Your task to perform on an android device: Empty the shopping cart on amazon.com. Search for acer predator on amazon.com, select the first entry, and add it to the cart. Image 0: 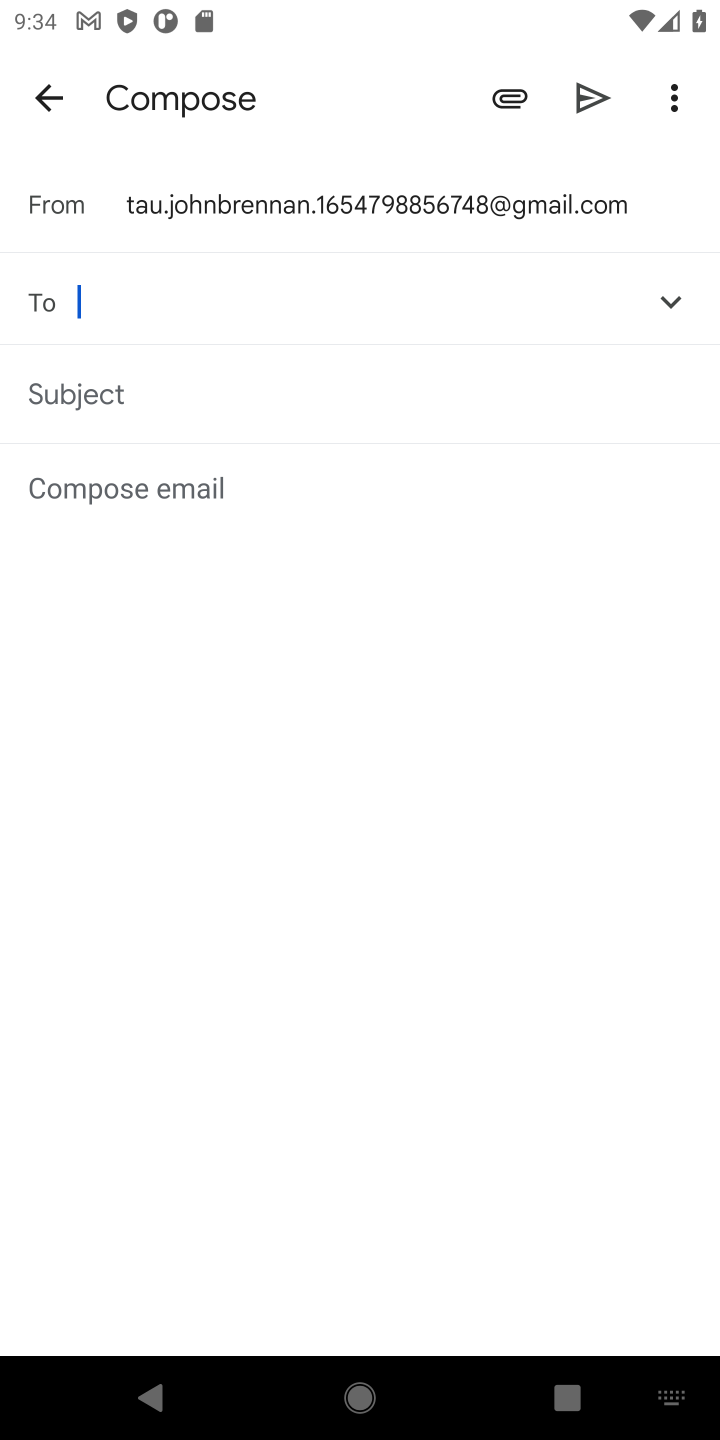
Step 0: press home button
Your task to perform on an android device: Empty the shopping cart on amazon.com. Search for acer predator on amazon.com, select the first entry, and add it to the cart. Image 1: 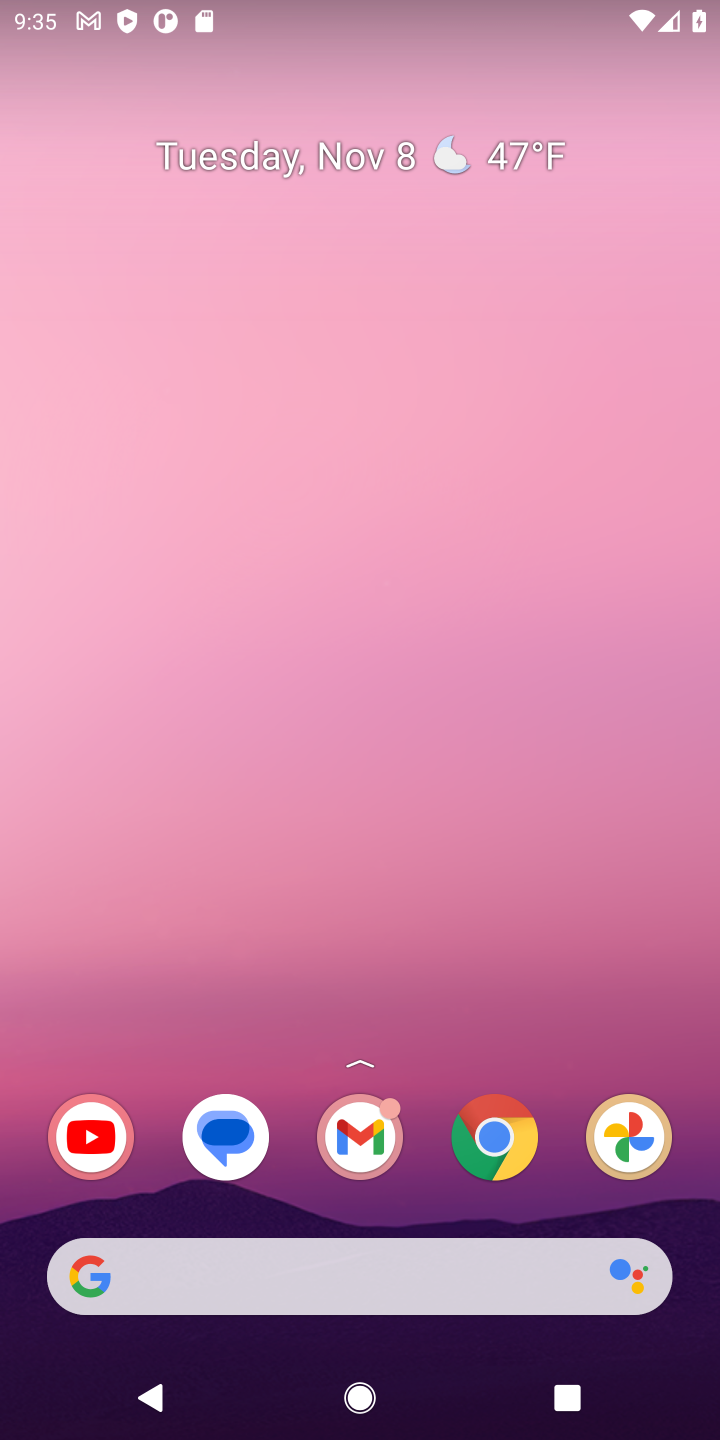
Step 1: click (498, 1140)
Your task to perform on an android device: Empty the shopping cart on amazon.com. Search for acer predator on amazon.com, select the first entry, and add it to the cart. Image 2: 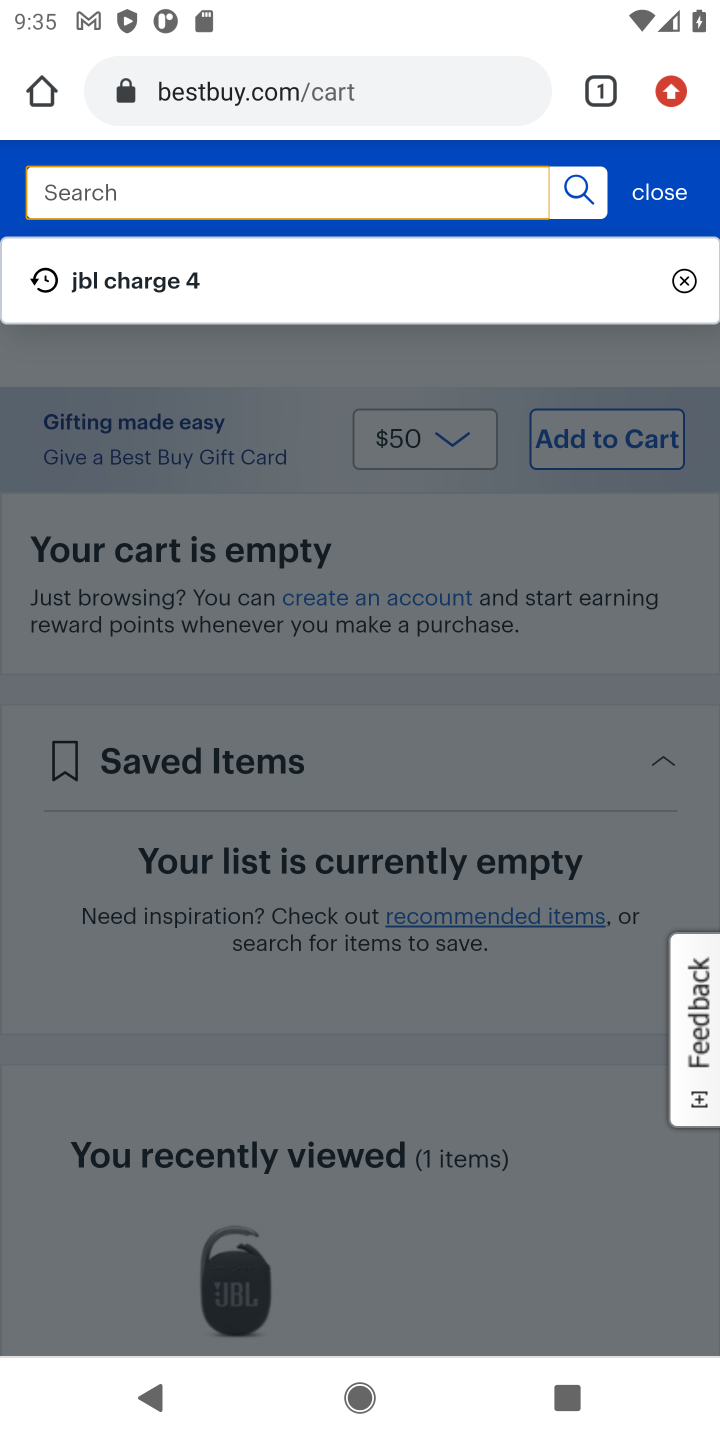
Step 2: click (398, 81)
Your task to perform on an android device: Empty the shopping cart on amazon.com. Search for acer predator on amazon.com, select the first entry, and add it to the cart. Image 3: 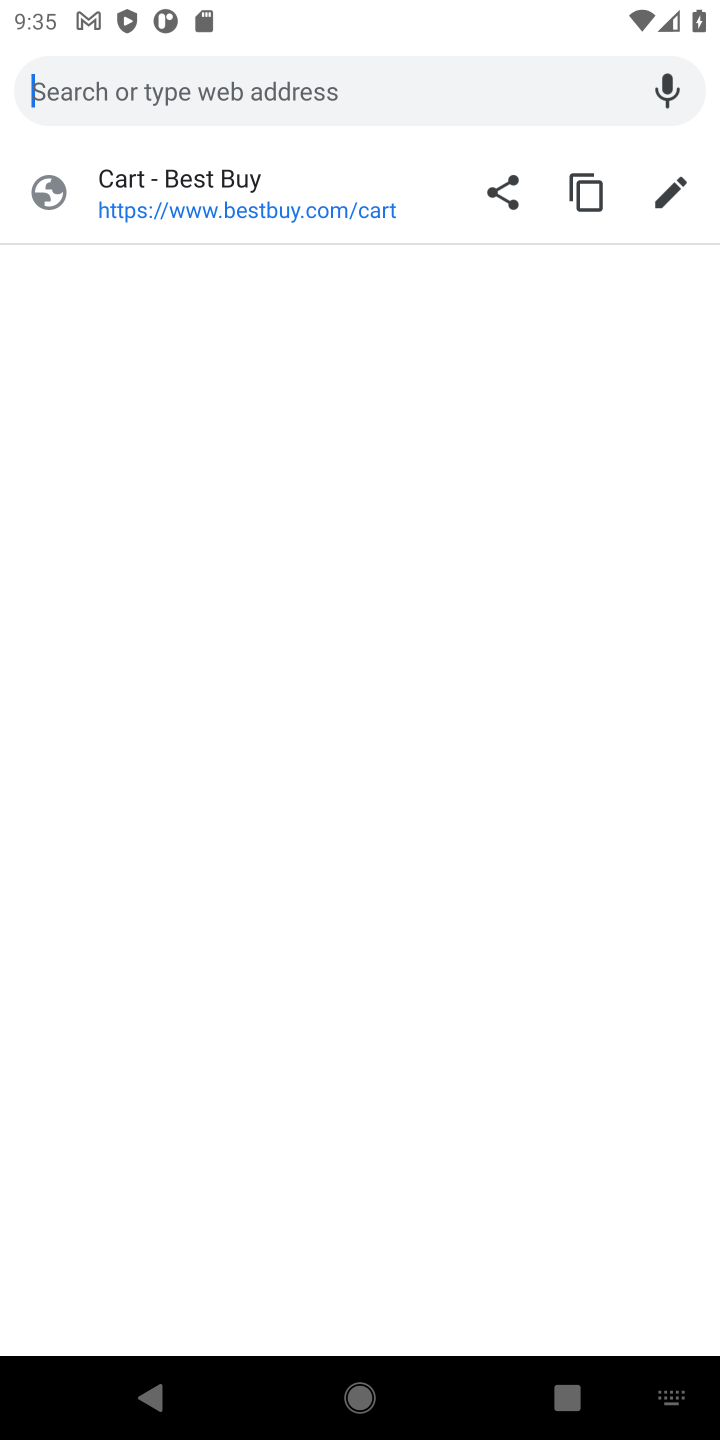
Step 3: type "amazon.com"
Your task to perform on an android device: Empty the shopping cart on amazon.com. Search for acer predator on amazon.com, select the first entry, and add it to the cart. Image 4: 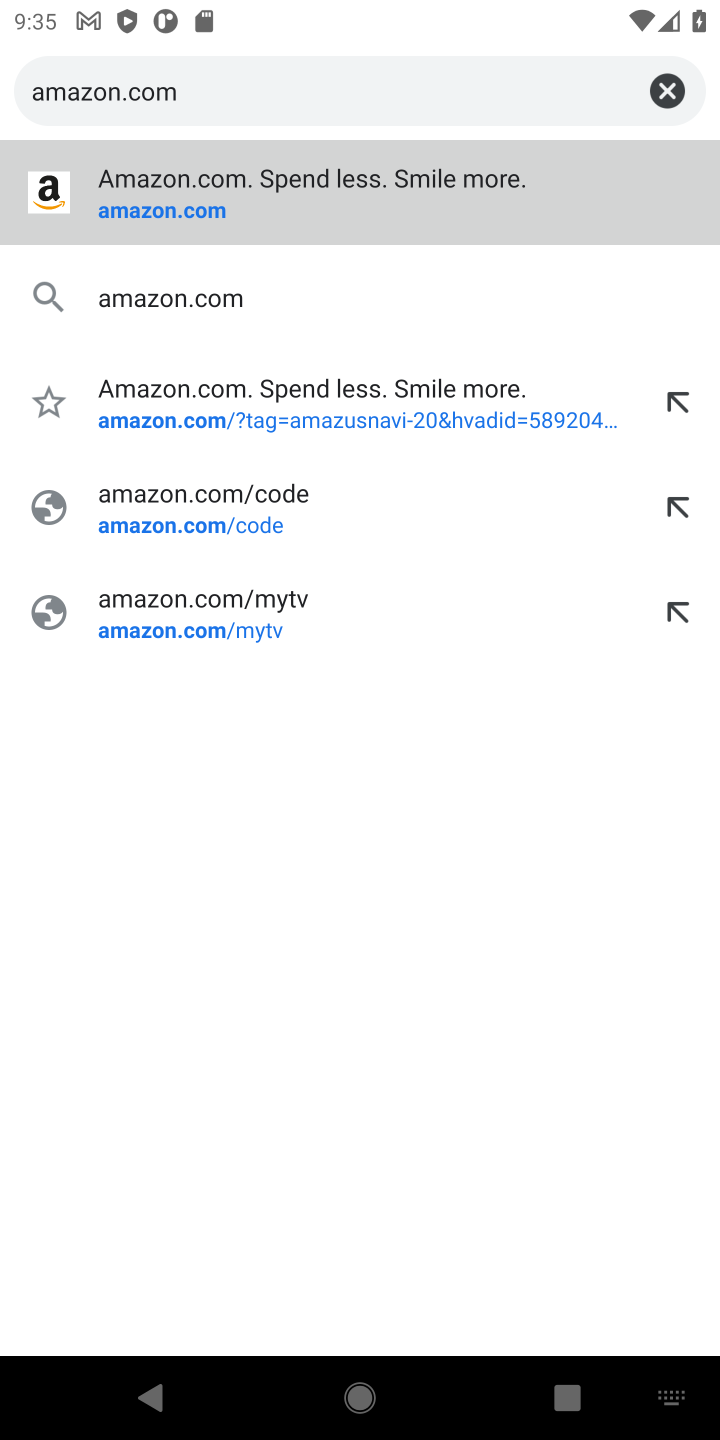
Step 4: click (223, 313)
Your task to perform on an android device: Empty the shopping cart on amazon.com. Search for acer predator on amazon.com, select the first entry, and add it to the cart. Image 5: 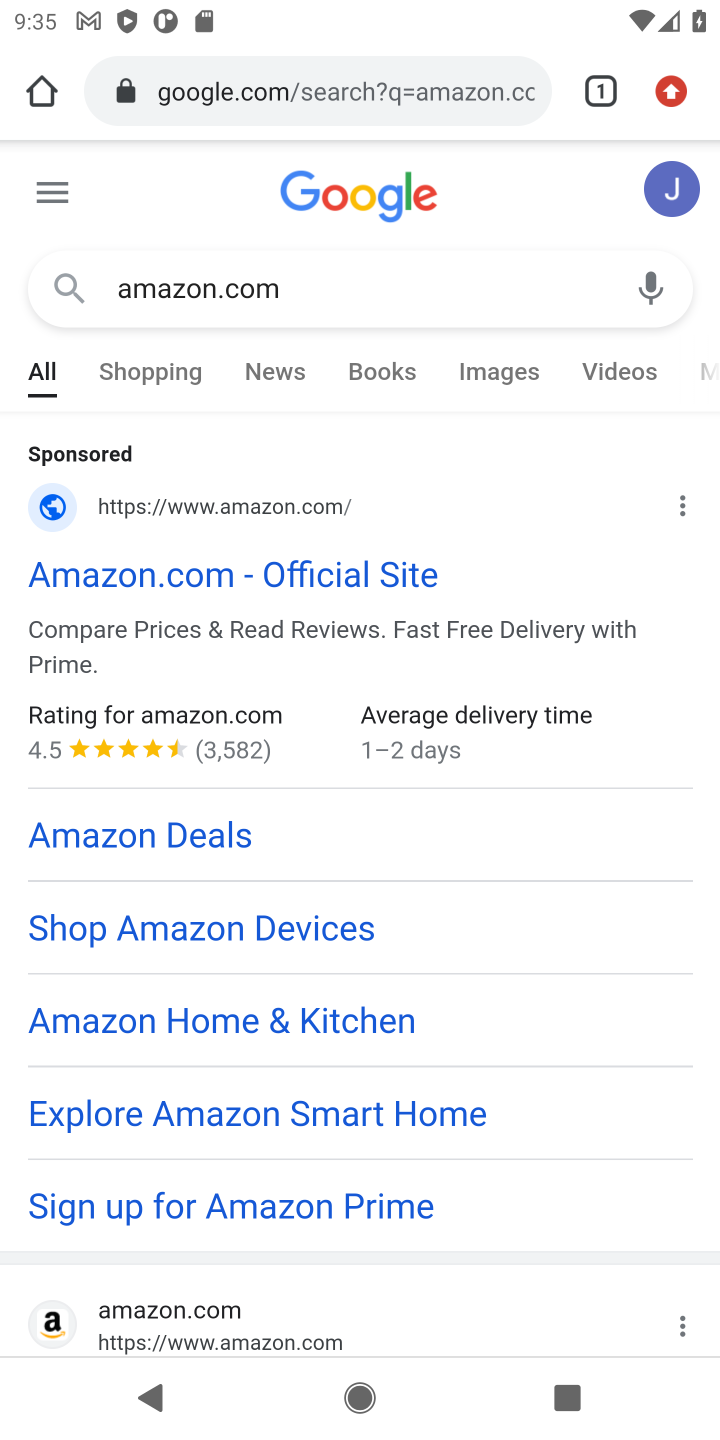
Step 5: click (231, 1322)
Your task to perform on an android device: Empty the shopping cart on amazon.com. Search for acer predator on amazon.com, select the first entry, and add it to the cart. Image 6: 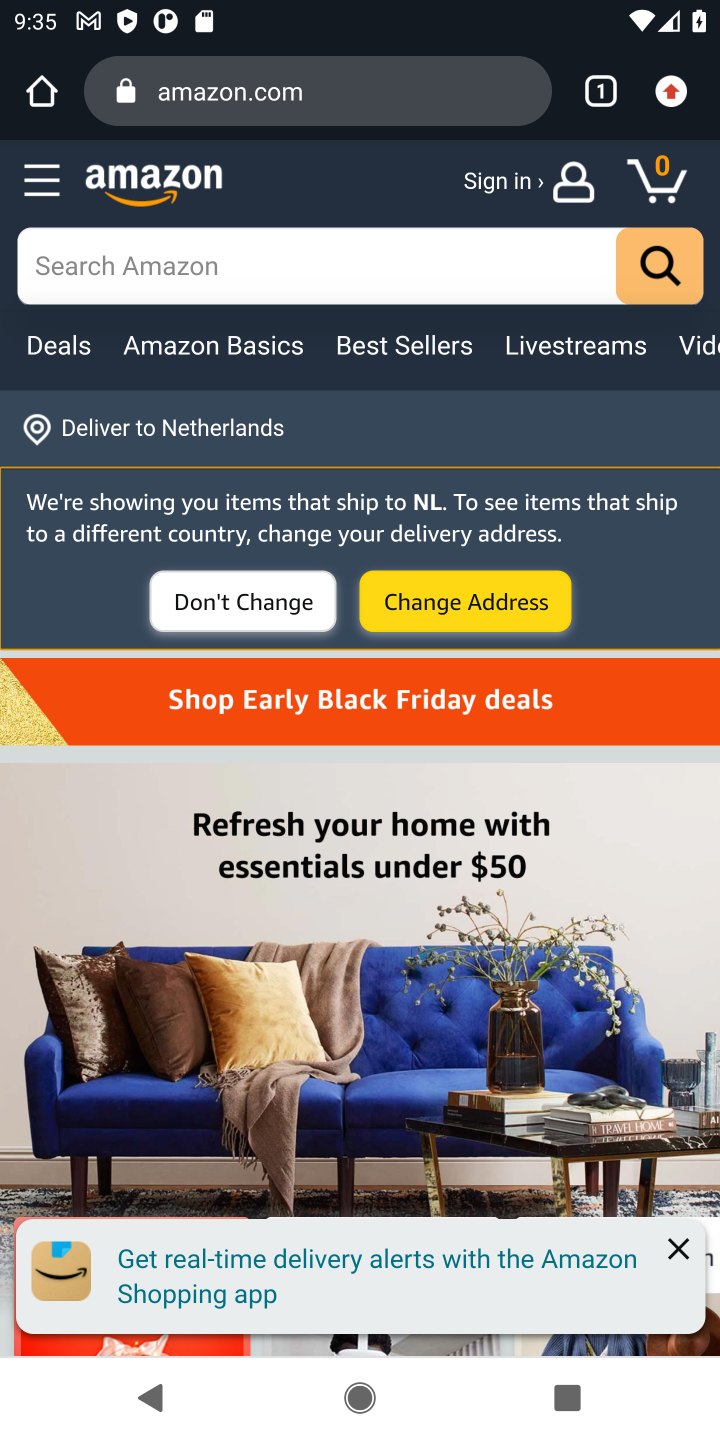
Step 6: click (665, 189)
Your task to perform on an android device: Empty the shopping cart on amazon.com. Search for acer predator on amazon.com, select the first entry, and add it to the cart. Image 7: 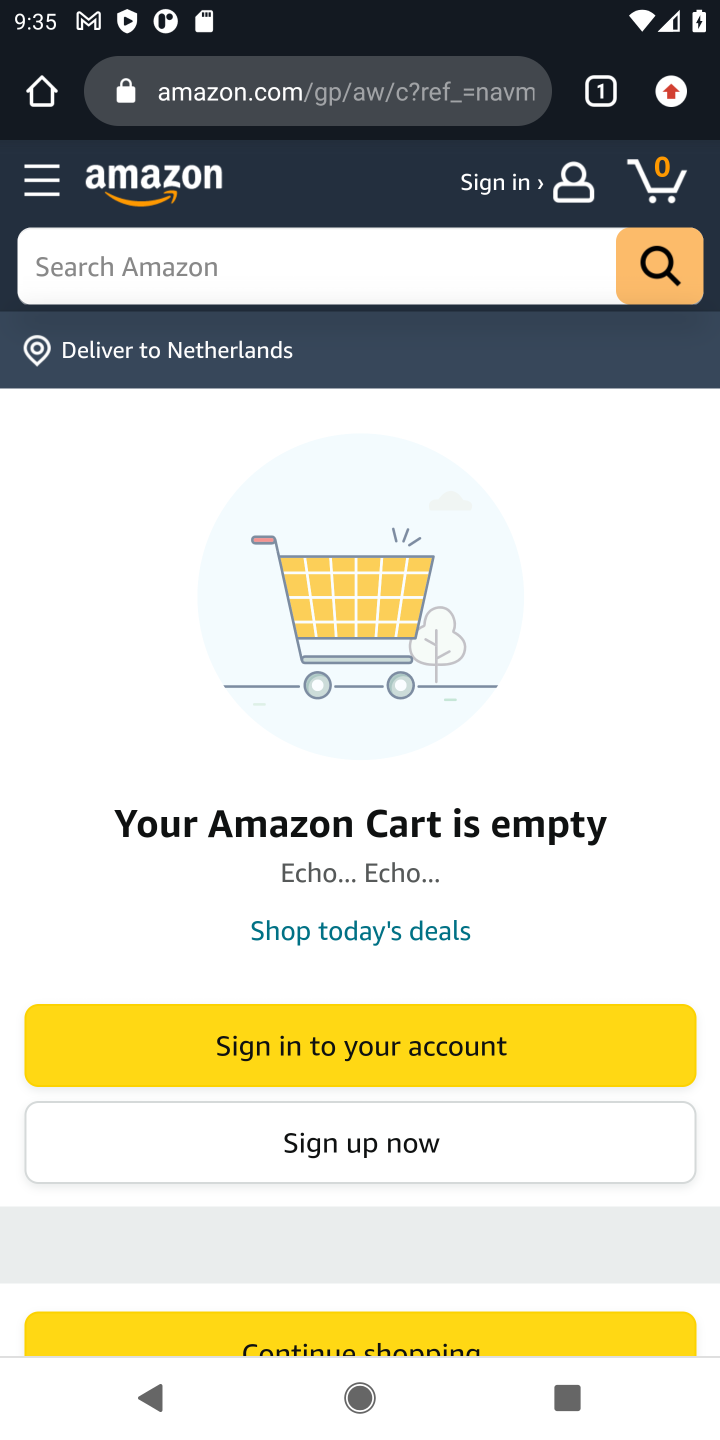
Step 7: click (297, 264)
Your task to perform on an android device: Empty the shopping cart on amazon.com. Search for acer predator on amazon.com, select the first entry, and add it to the cart. Image 8: 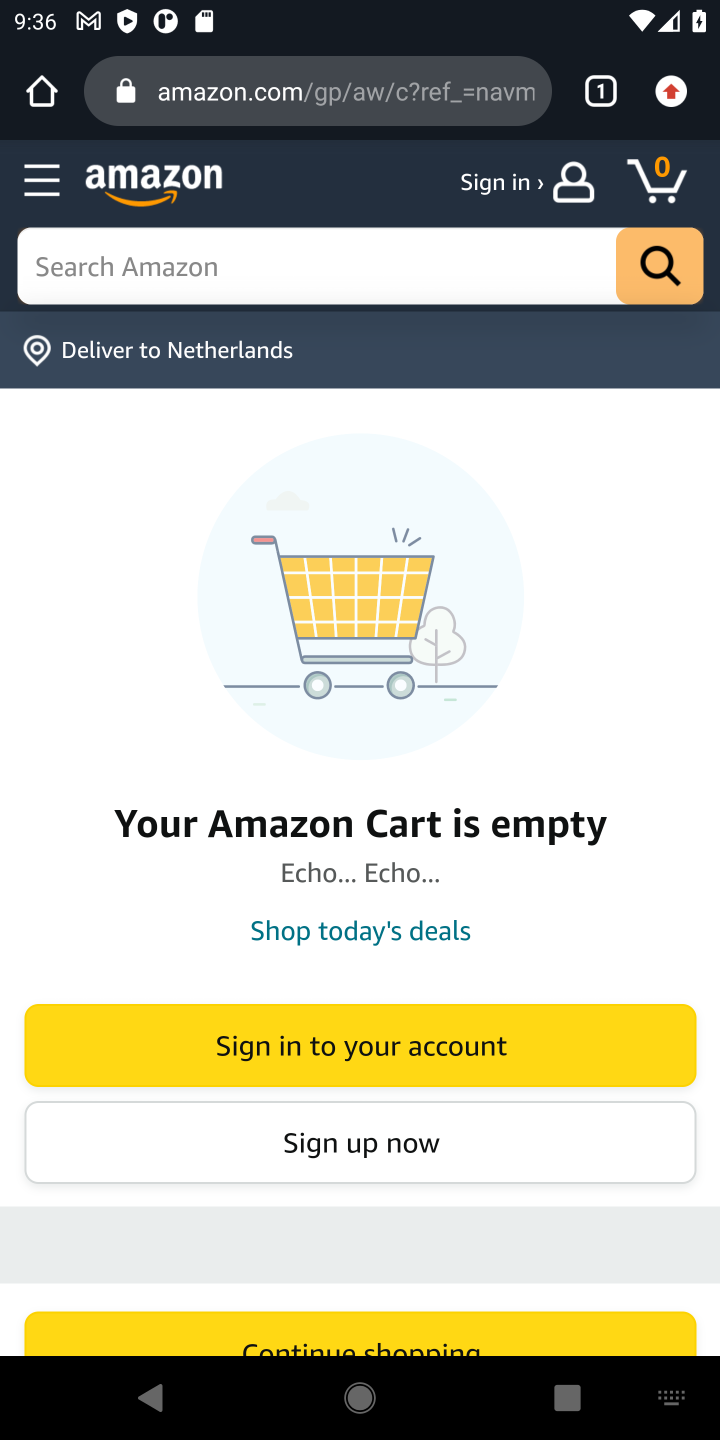
Step 8: type "acer predator"
Your task to perform on an android device: Empty the shopping cart on amazon.com. Search for acer predator on amazon.com, select the first entry, and add it to the cart. Image 9: 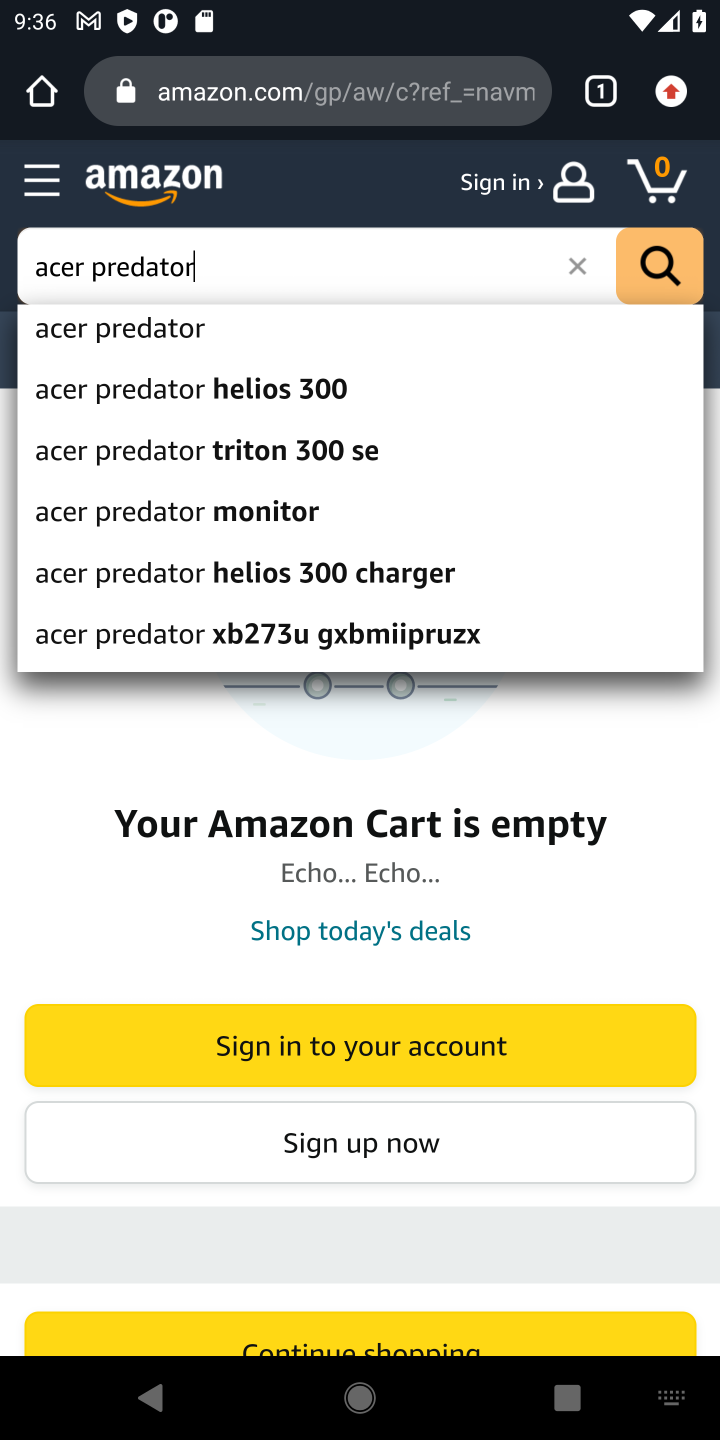
Step 9: click (175, 329)
Your task to perform on an android device: Empty the shopping cart on amazon.com. Search for acer predator on amazon.com, select the first entry, and add it to the cart. Image 10: 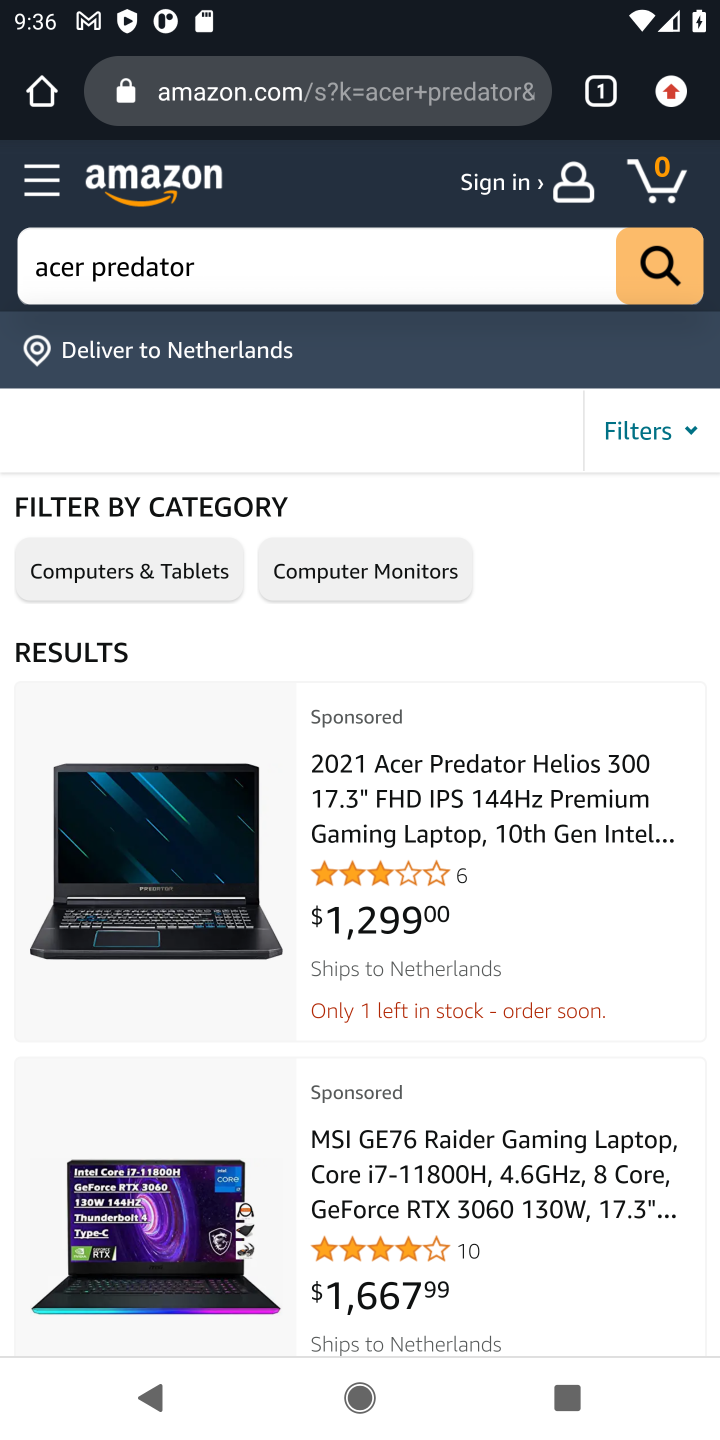
Step 10: click (530, 778)
Your task to perform on an android device: Empty the shopping cart on amazon.com. Search for acer predator on amazon.com, select the first entry, and add it to the cart. Image 11: 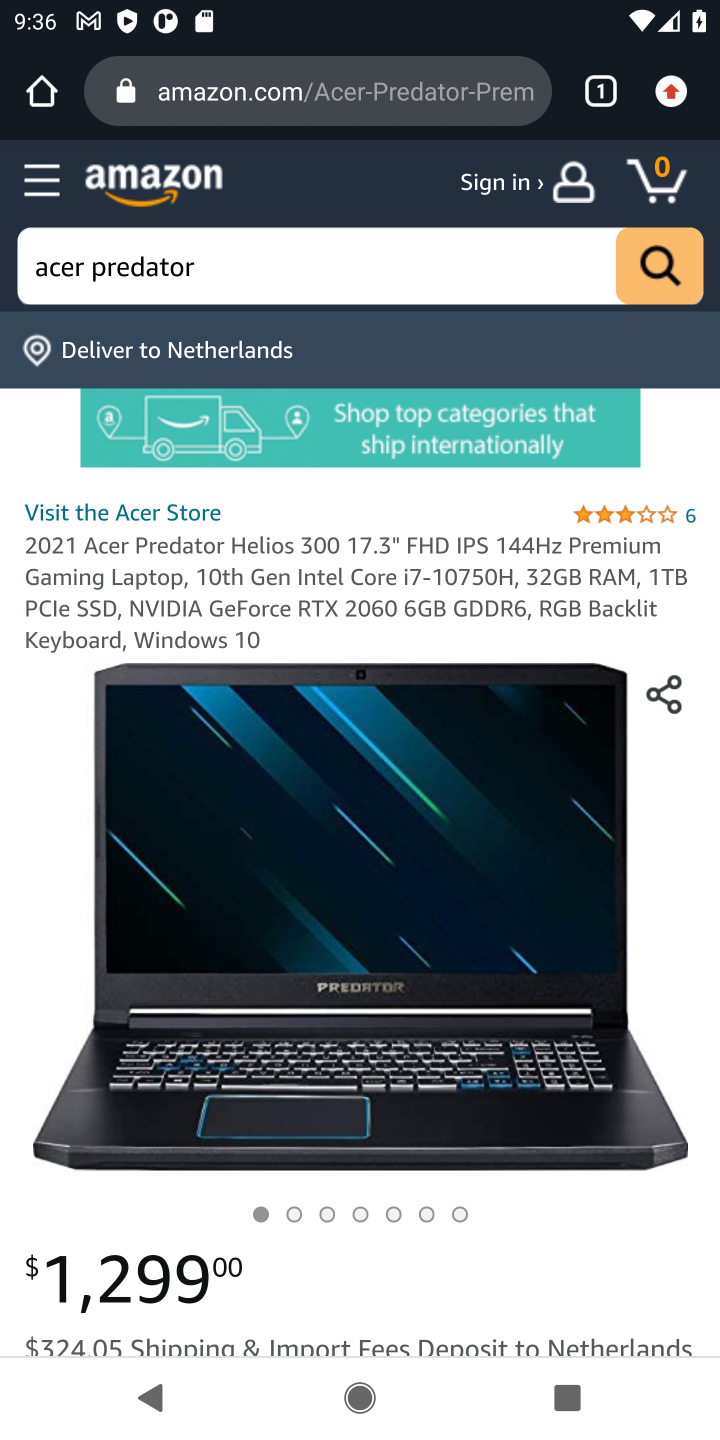
Step 11: drag from (491, 1213) to (567, 549)
Your task to perform on an android device: Empty the shopping cart on amazon.com. Search for acer predator on amazon.com, select the first entry, and add it to the cart. Image 12: 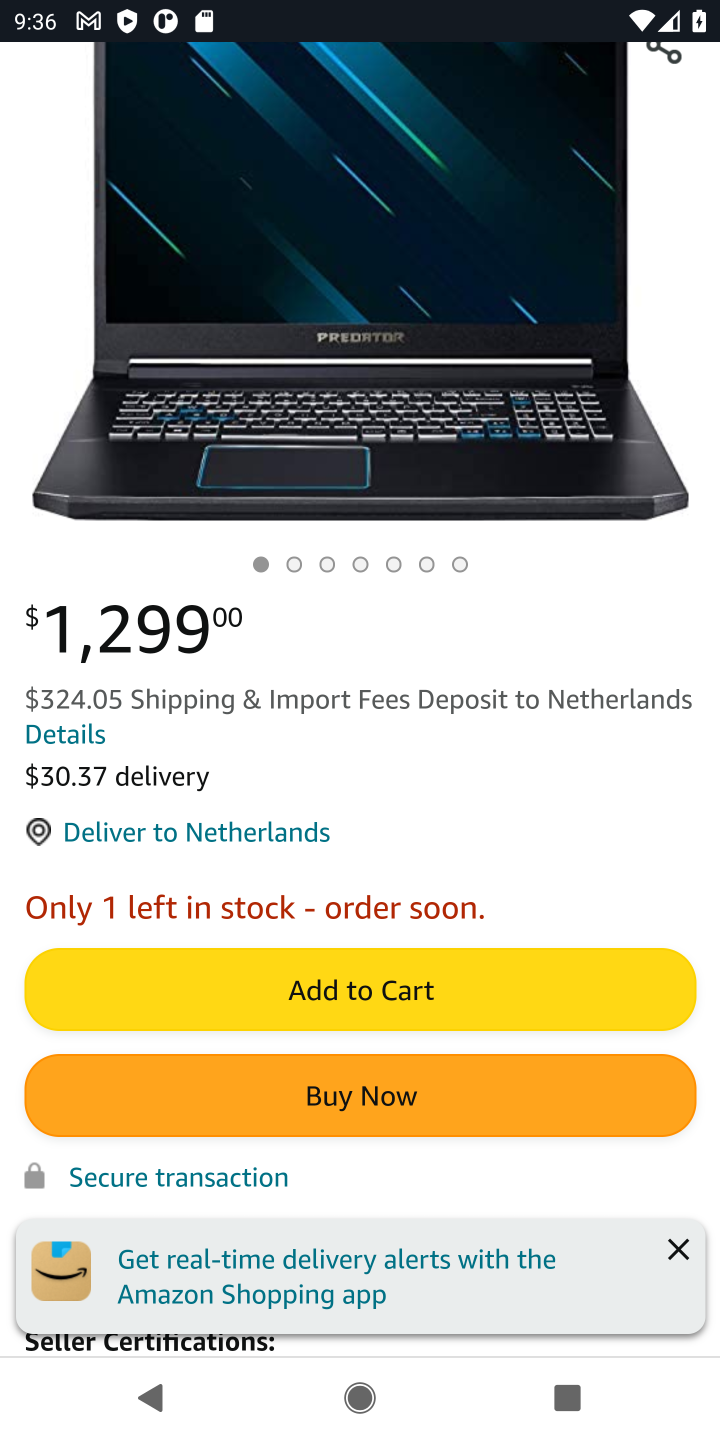
Step 12: click (354, 1010)
Your task to perform on an android device: Empty the shopping cart on amazon.com. Search for acer predator on amazon.com, select the first entry, and add it to the cart. Image 13: 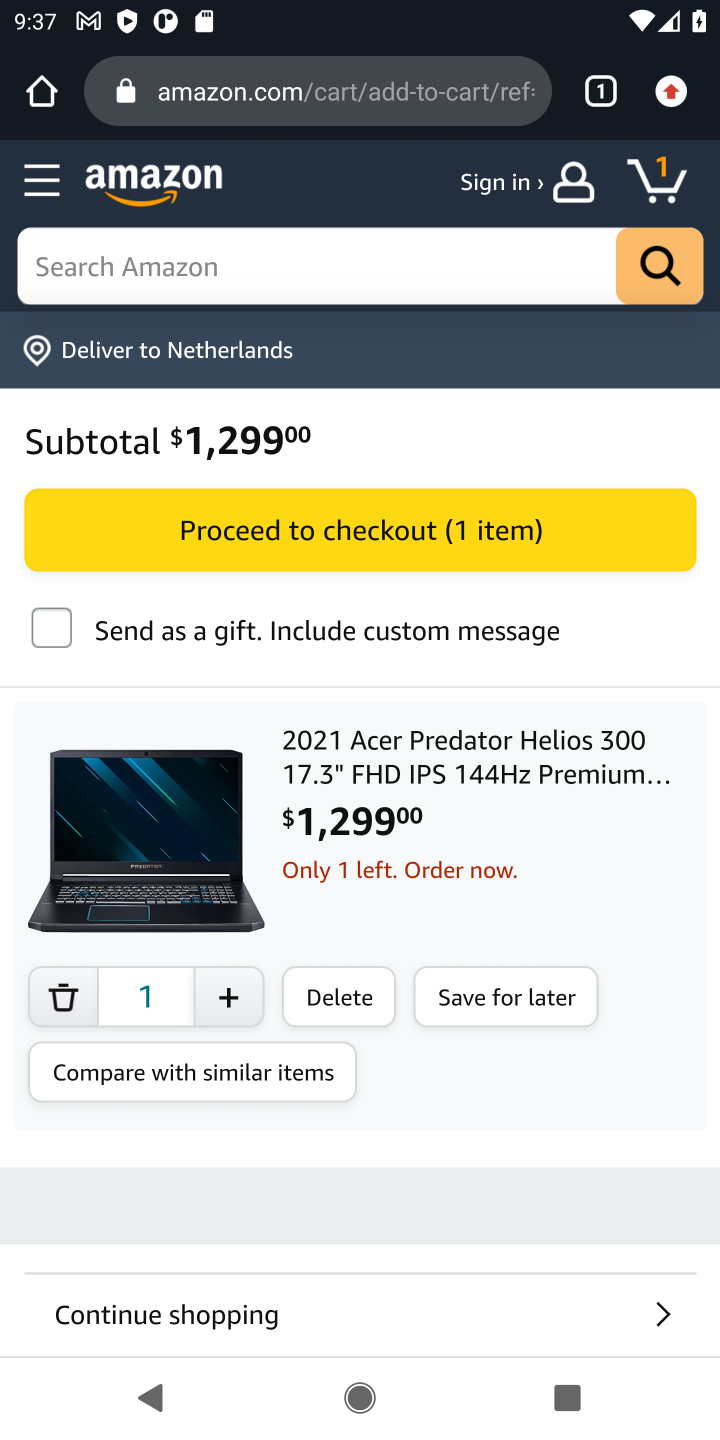
Step 13: task complete